Your task to perform on an android device: Open Google Image 0: 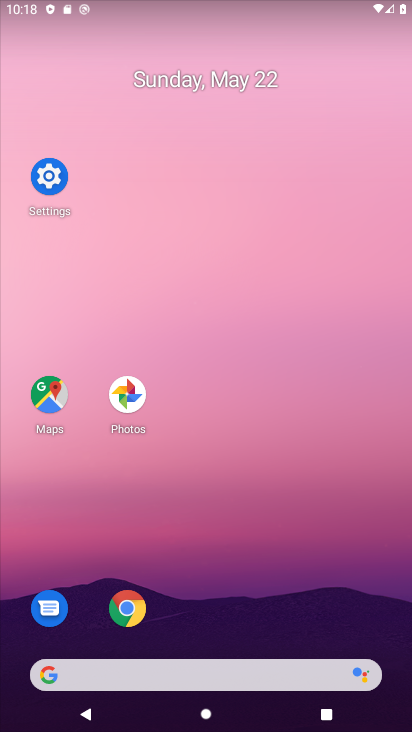
Step 0: drag from (285, 639) to (261, 174)
Your task to perform on an android device: Open Google Image 1: 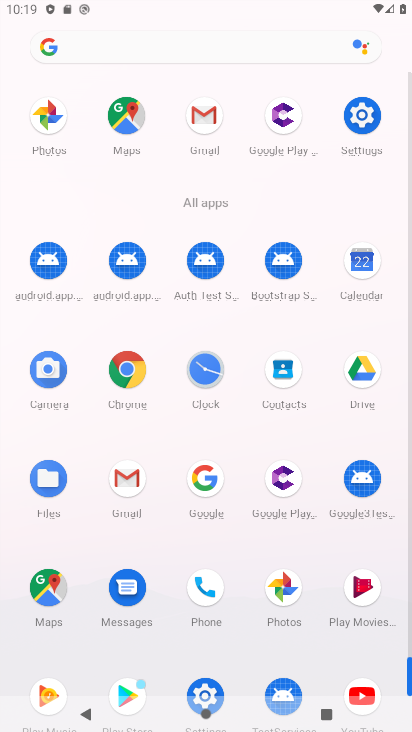
Step 1: click (218, 478)
Your task to perform on an android device: Open Google Image 2: 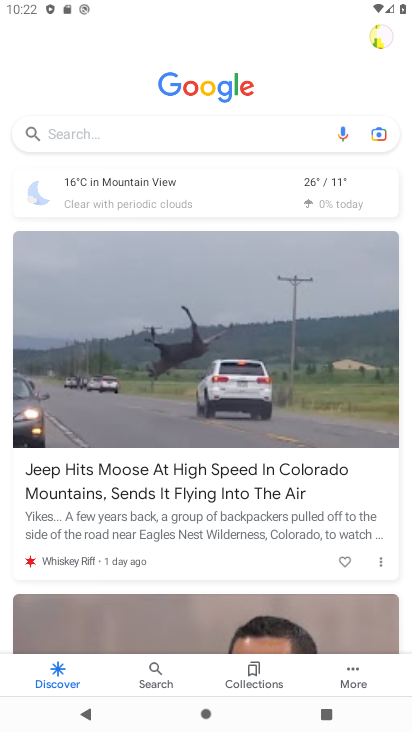
Step 2: task complete